Your task to perform on an android device: toggle priority inbox in the gmail app Image 0: 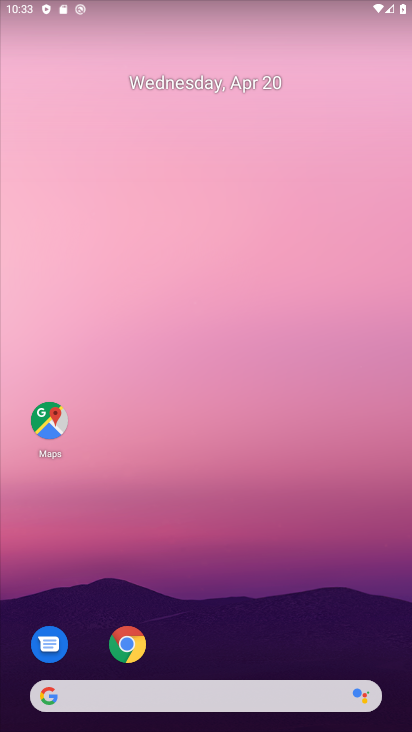
Step 0: drag from (239, 427) to (301, 103)
Your task to perform on an android device: toggle priority inbox in the gmail app Image 1: 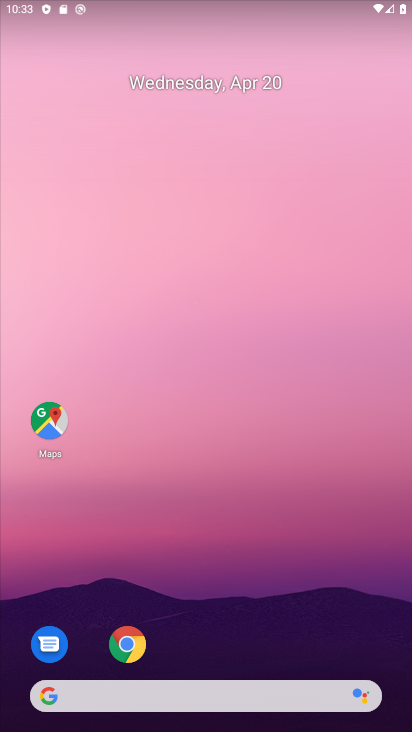
Step 1: drag from (188, 570) to (203, 94)
Your task to perform on an android device: toggle priority inbox in the gmail app Image 2: 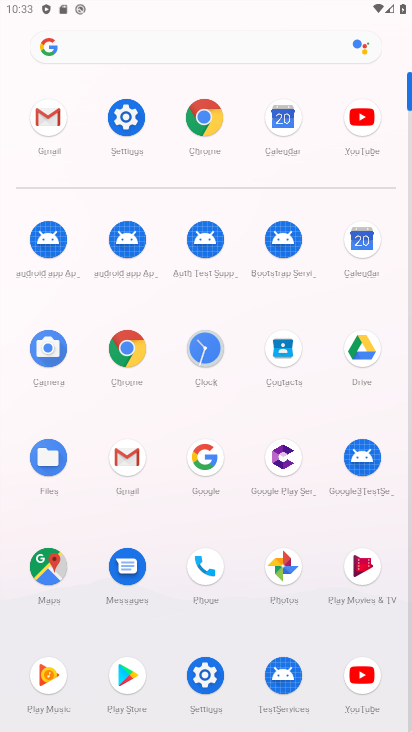
Step 2: click (44, 113)
Your task to perform on an android device: toggle priority inbox in the gmail app Image 3: 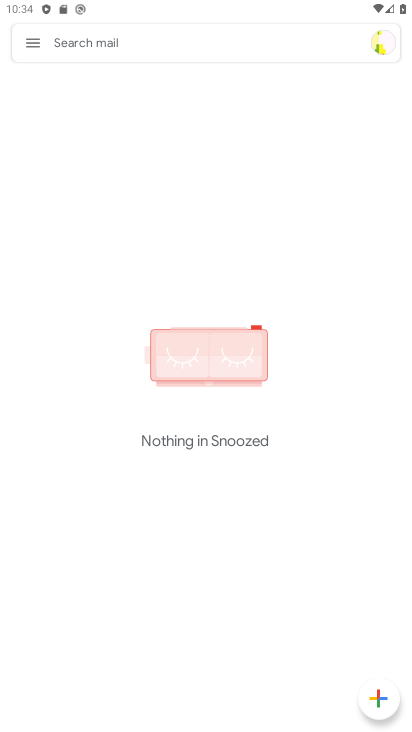
Step 3: click (32, 42)
Your task to perform on an android device: toggle priority inbox in the gmail app Image 4: 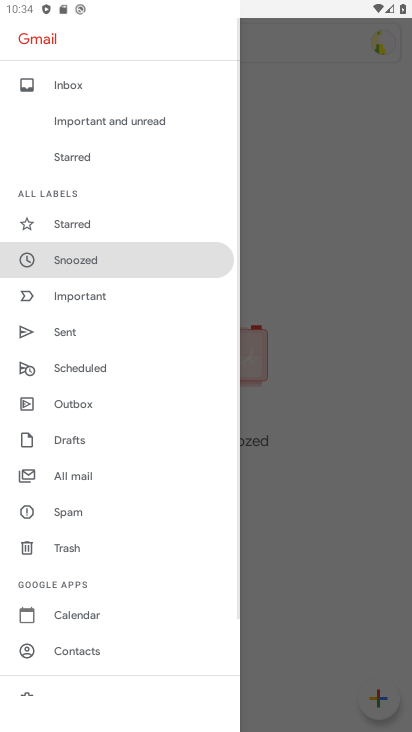
Step 4: drag from (98, 553) to (122, 95)
Your task to perform on an android device: toggle priority inbox in the gmail app Image 5: 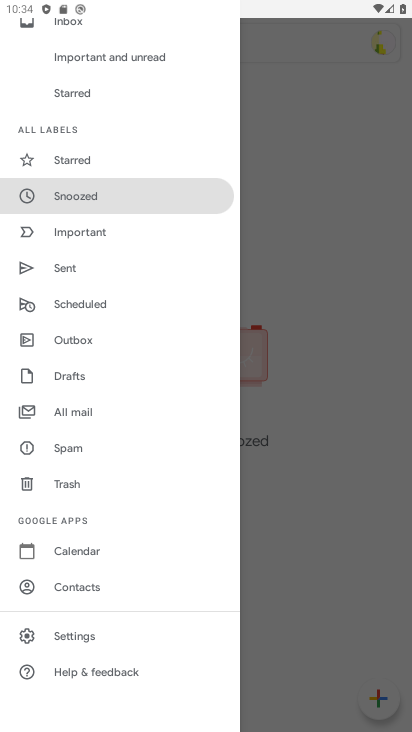
Step 5: click (77, 634)
Your task to perform on an android device: toggle priority inbox in the gmail app Image 6: 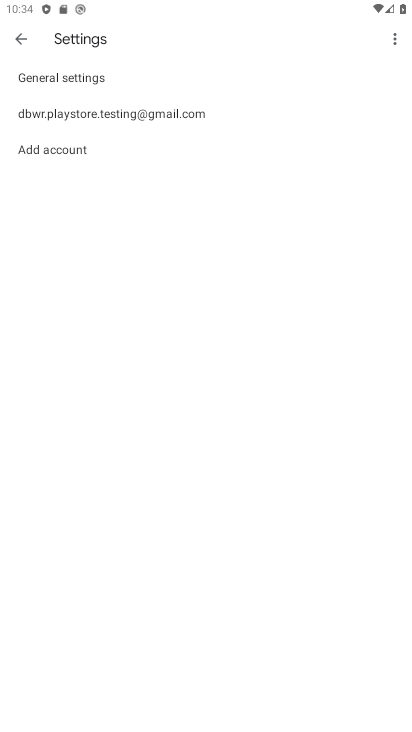
Step 6: click (69, 107)
Your task to perform on an android device: toggle priority inbox in the gmail app Image 7: 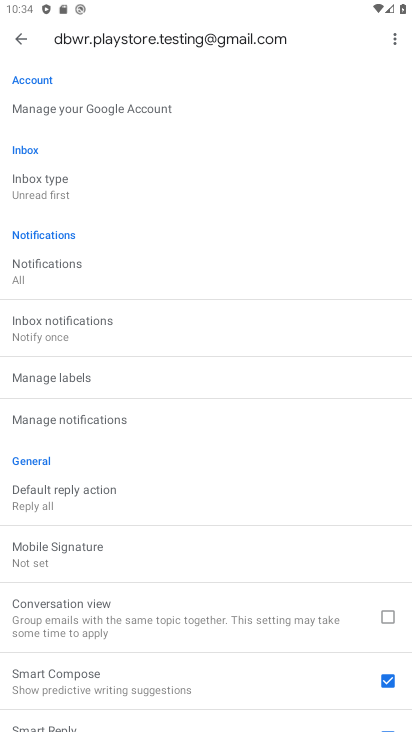
Step 7: drag from (84, 581) to (107, 623)
Your task to perform on an android device: toggle priority inbox in the gmail app Image 8: 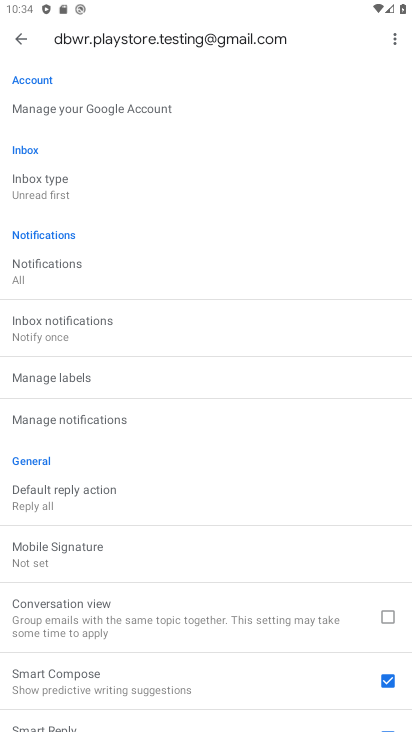
Step 8: click (59, 188)
Your task to perform on an android device: toggle priority inbox in the gmail app Image 9: 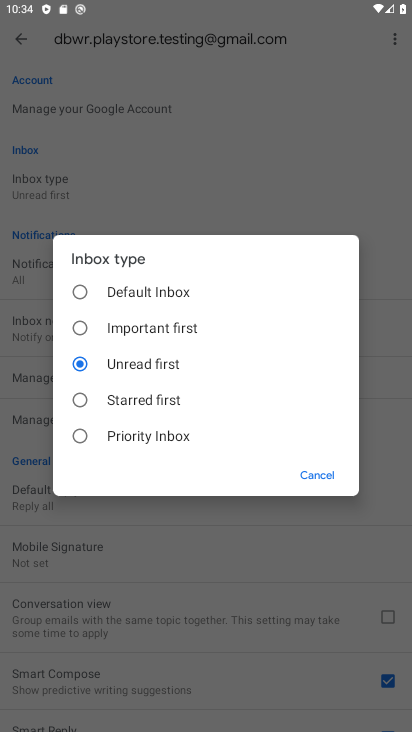
Step 9: click (87, 435)
Your task to perform on an android device: toggle priority inbox in the gmail app Image 10: 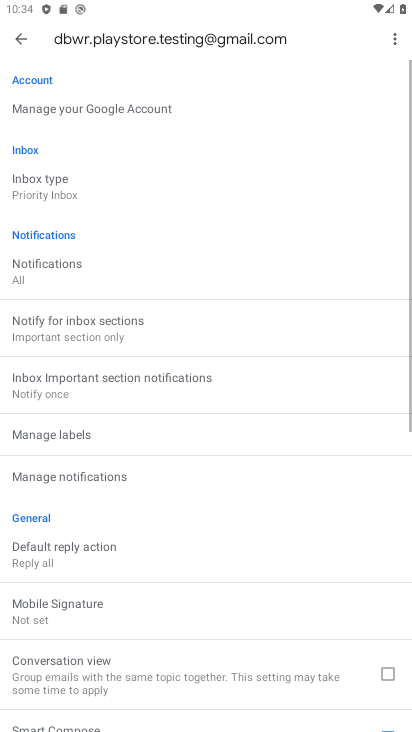
Step 10: task complete